Your task to perform on an android device: Go to Reddit.com Image 0: 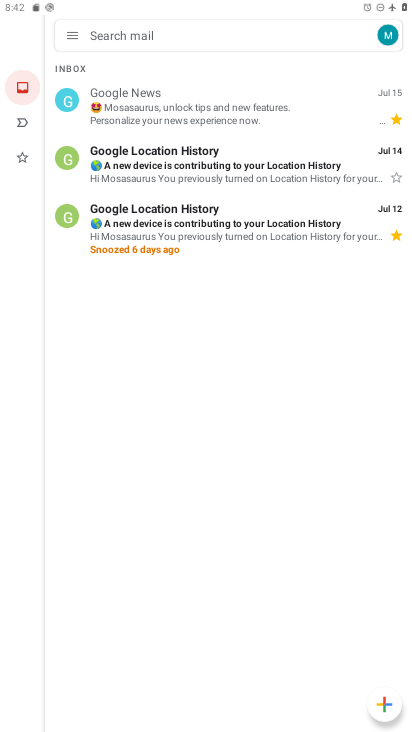
Step 0: press home button
Your task to perform on an android device: Go to Reddit.com Image 1: 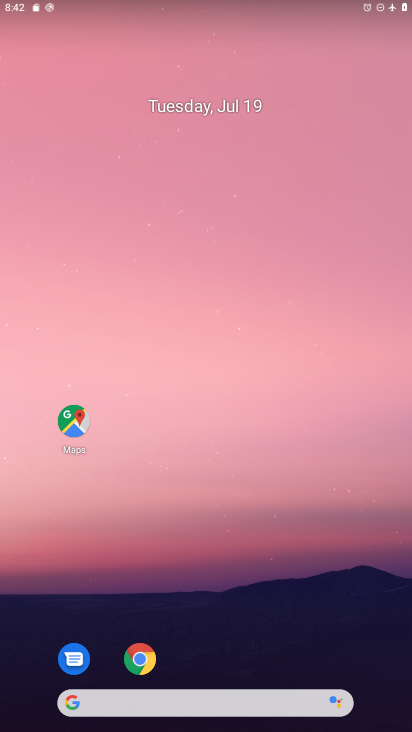
Step 1: drag from (211, 640) to (214, 312)
Your task to perform on an android device: Go to Reddit.com Image 2: 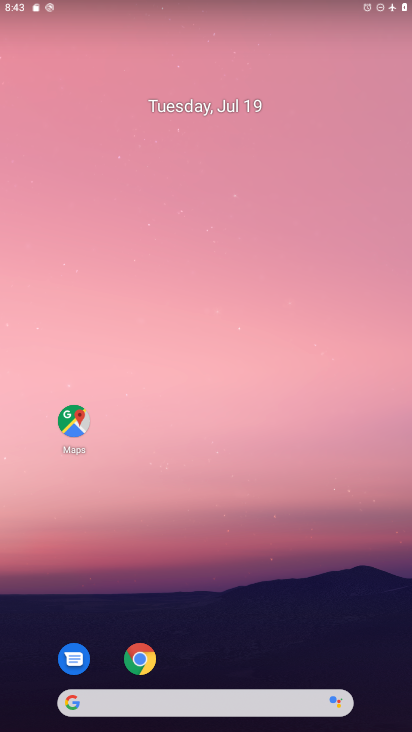
Step 2: click (144, 662)
Your task to perform on an android device: Go to Reddit.com Image 3: 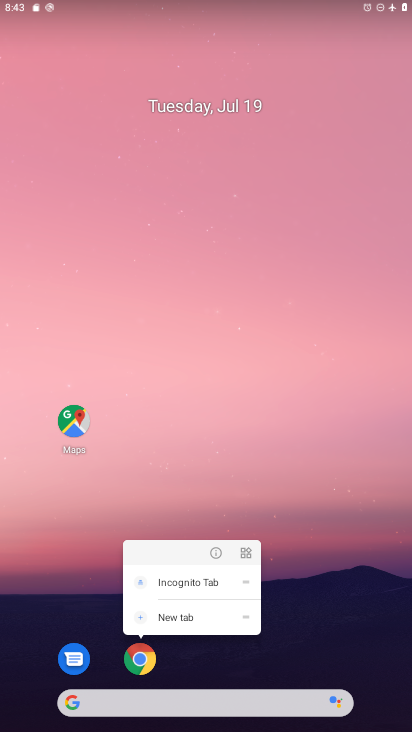
Step 3: click (128, 651)
Your task to perform on an android device: Go to Reddit.com Image 4: 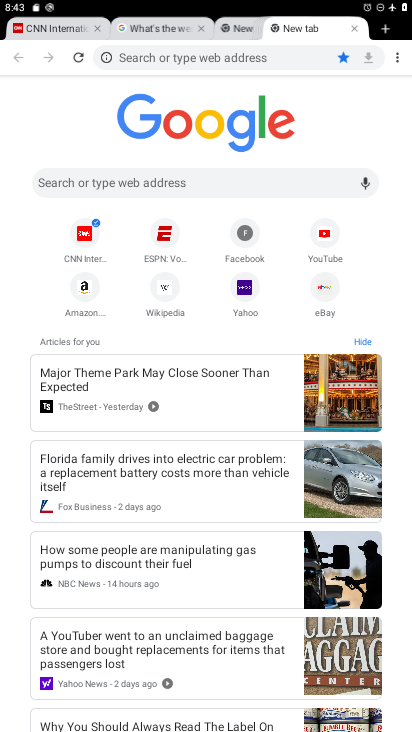
Step 4: click (164, 54)
Your task to perform on an android device: Go to Reddit.com Image 5: 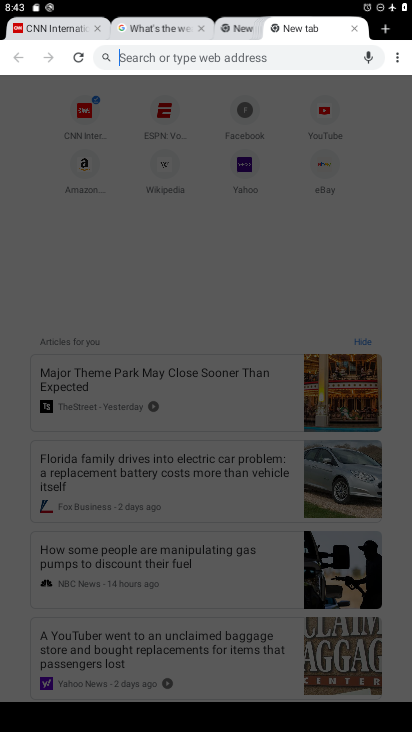
Step 5: type "Reddit.com "
Your task to perform on an android device: Go to Reddit.com Image 6: 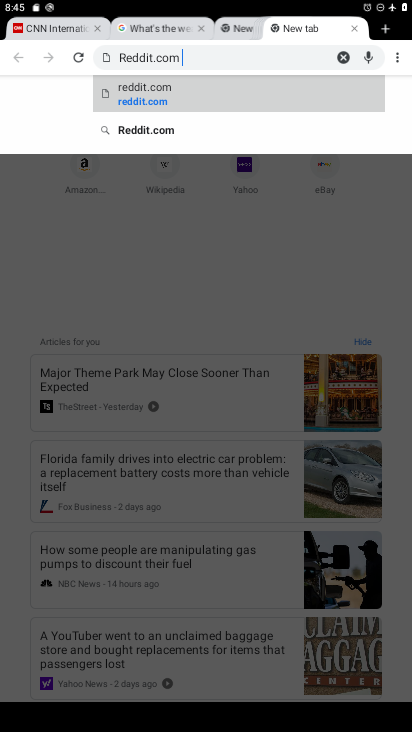
Step 6: click (187, 92)
Your task to perform on an android device: Go to Reddit.com Image 7: 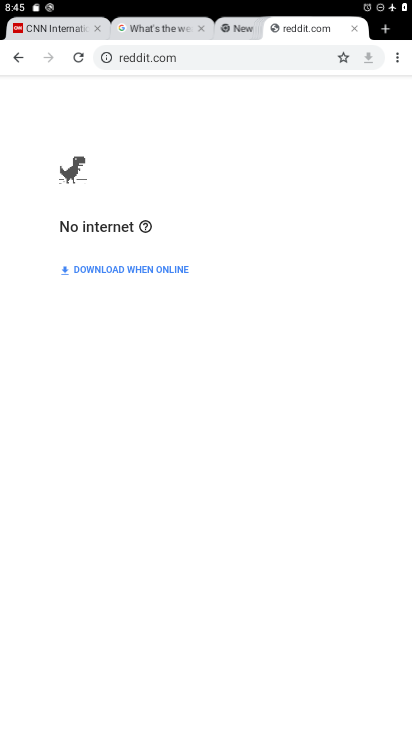
Step 7: task complete